Your task to perform on an android device: search for starred emails in the gmail app Image 0: 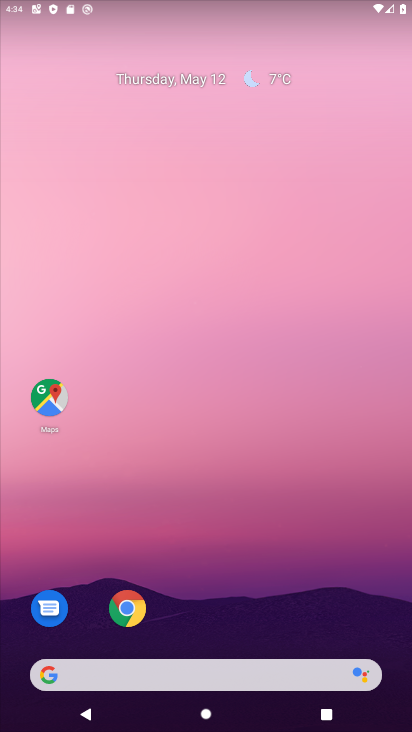
Step 0: drag from (181, 615) to (216, 162)
Your task to perform on an android device: search for starred emails in the gmail app Image 1: 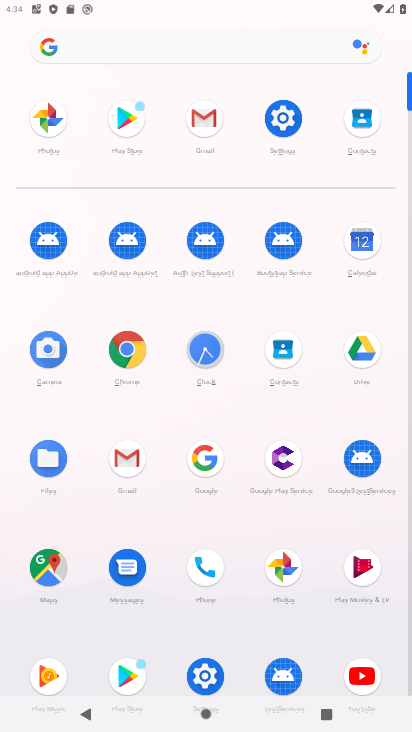
Step 1: click (216, 125)
Your task to perform on an android device: search for starred emails in the gmail app Image 2: 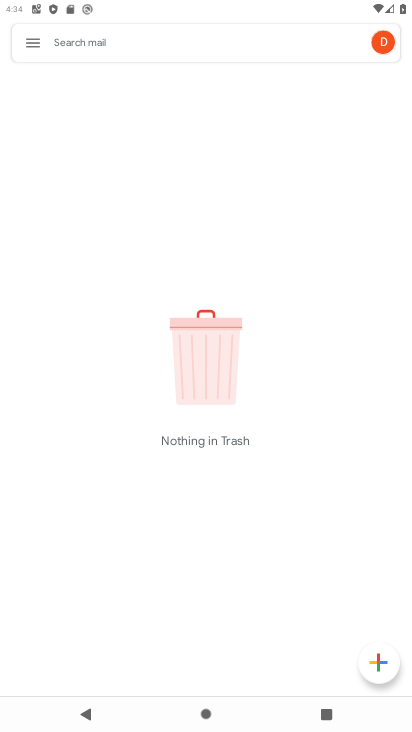
Step 2: click (40, 44)
Your task to perform on an android device: search for starred emails in the gmail app Image 3: 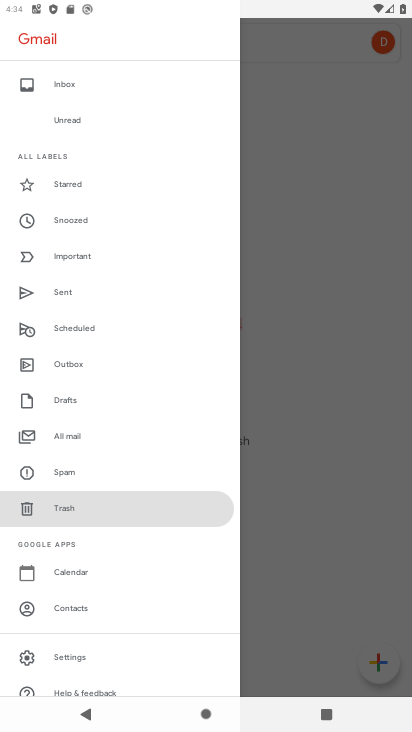
Step 3: click (97, 196)
Your task to perform on an android device: search for starred emails in the gmail app Image 4: 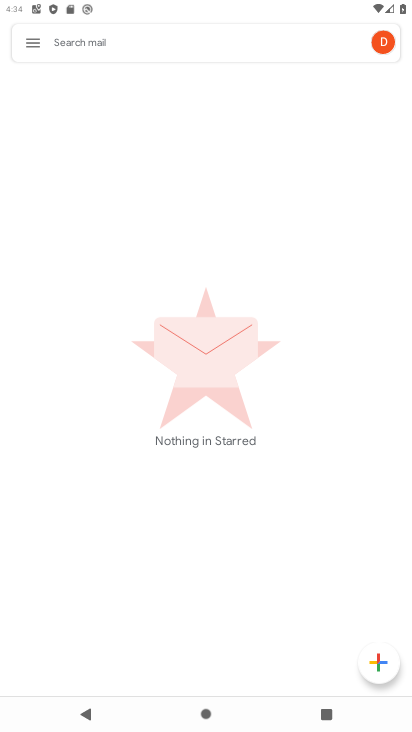
Step 4: task complete